Your task to perform on an android device: change text size in settings app Image 0: 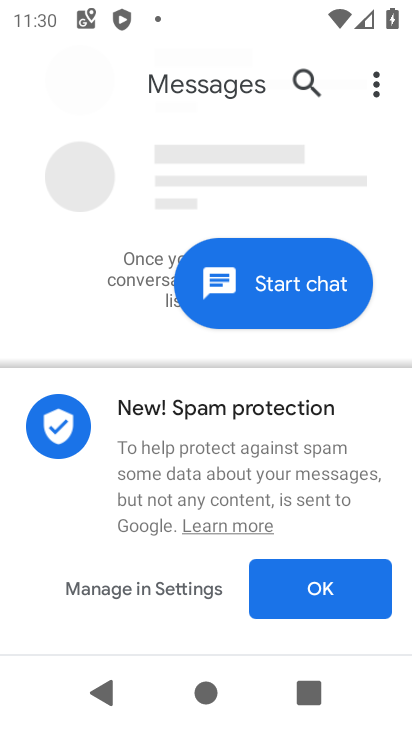
Step 0: press home button
Your task to perform on an android device: change text size in settings app Image 1: 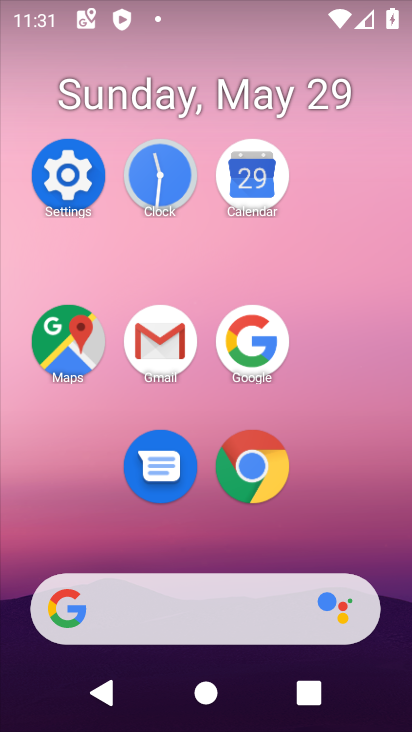
Step 1: click (78, 175)
Your task to perform on an android device: change text size in settings app Image 2: 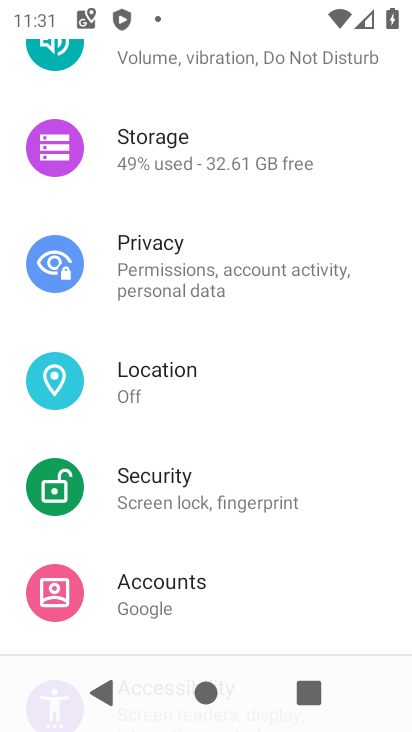
Step 2: drag from (355, 284) to (316, 644)
Your task to perform on an android device: change text size in settings app Image 3: 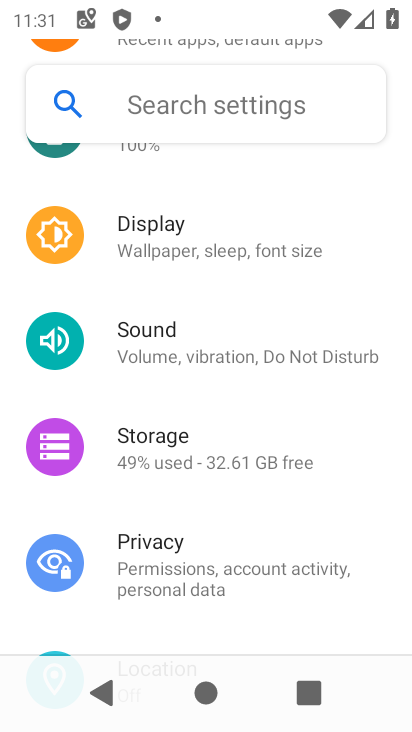
Step 3: click (261, 248)
Your task to perform on an android device: change text size in settings app Image 4: 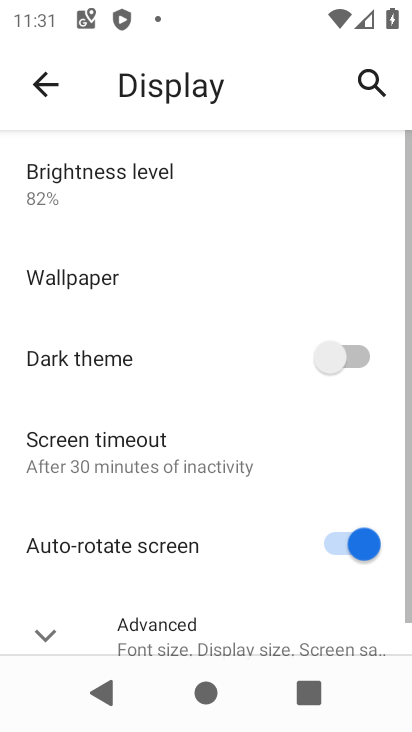
Step 4: drag from (190, 635) to (220, 287)
Your task to perform on an android device: change text size in settings app Image 5: 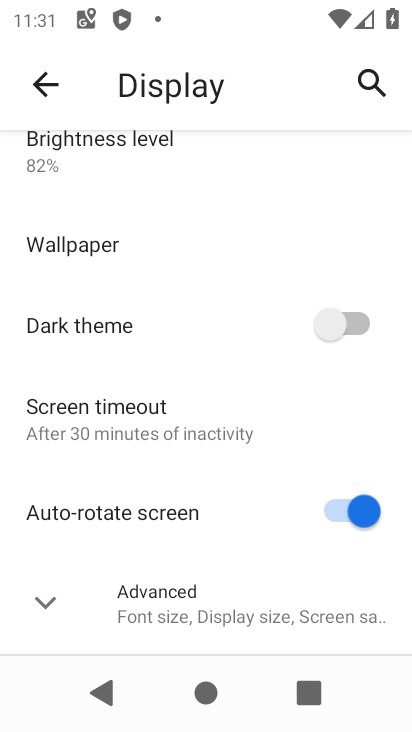
Step 5: click (209, 605)
Your task to perform on an android device: change text size in settings app Image 6: 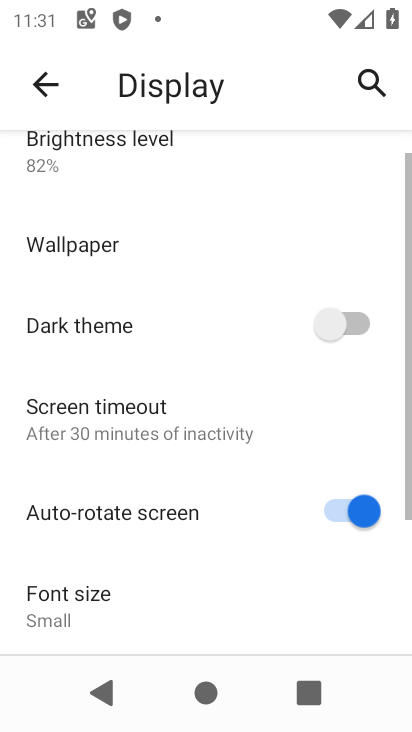
Step 6: drag from (208, 602) to (232, 111)
Your task to perform on an android device: change text size in settings app Image 7: 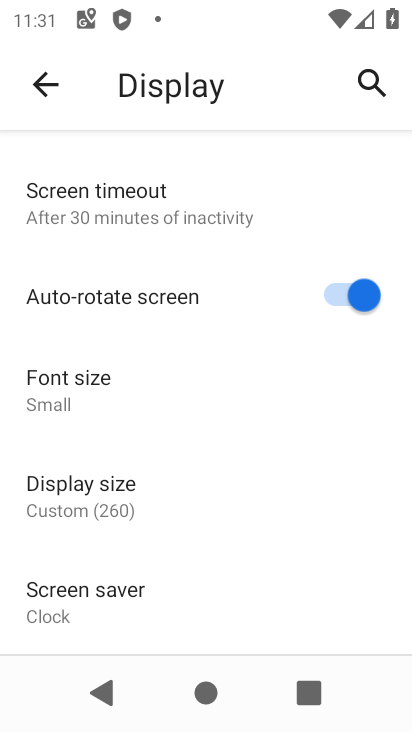
Step 7: click (116, 414)
Your task to perform on an android device: change text size in settings app Image 8: 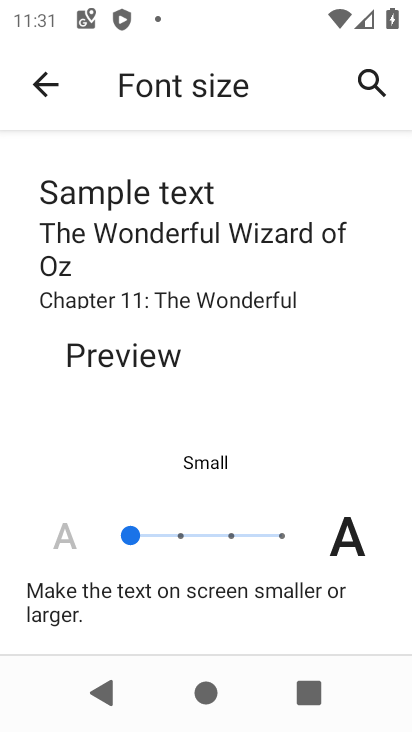
Step 8: click (177, 540)
Your task to perform on an android device: change text size in settings app Image 9: 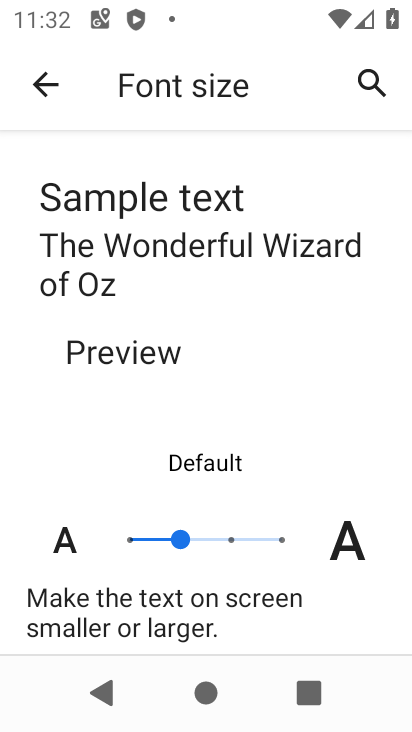
Step 9: task complete